Your task to perform on an android device: Go to settings Image 0: 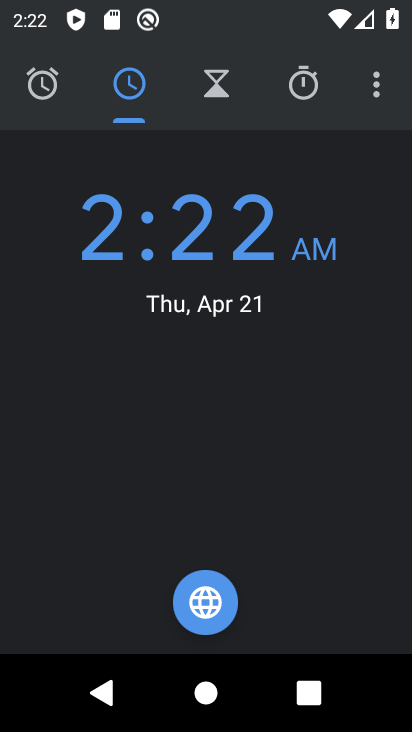
Step 0: press back button
Your task to perform on an android device: Go to settings Image 1: 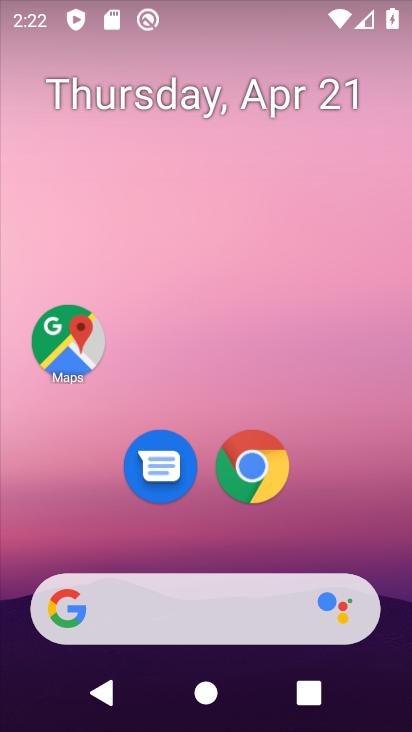
Step 1: drag from (169, 573) to (256, 98)
Your task to perform on an android device: Go to settings Image 2: 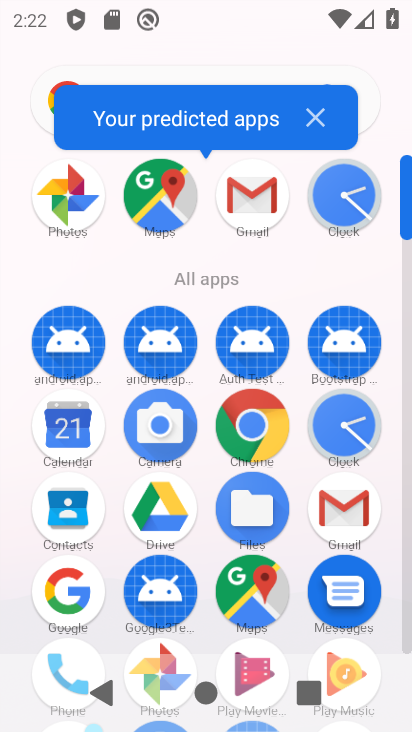
Step 2: drag from (214, 589) to (269, 270)
Your task to perform on an android device: Go to settings Image 3: 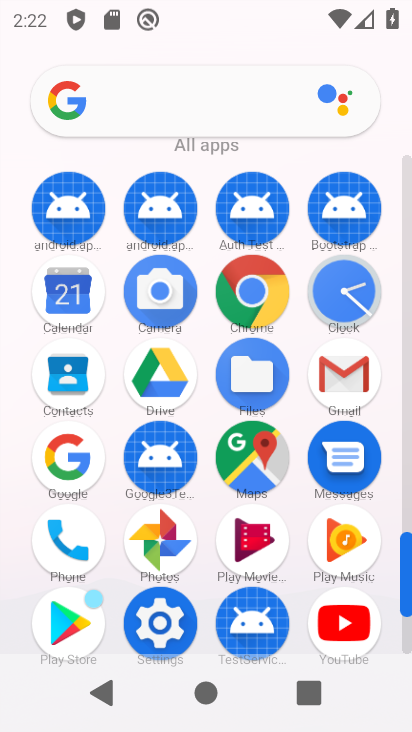
Step 3: click (188, 633)
Your task to perform on an android device: Go to settings Image 4: 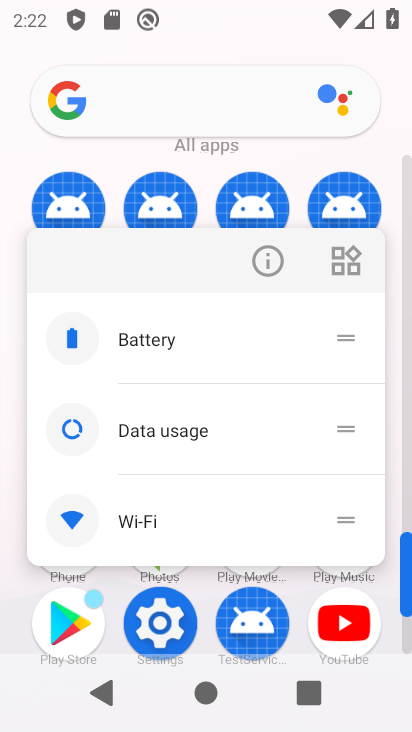
Step 4: click (161, 629)
Your task to perform on an android device: Go to settings Image 5: 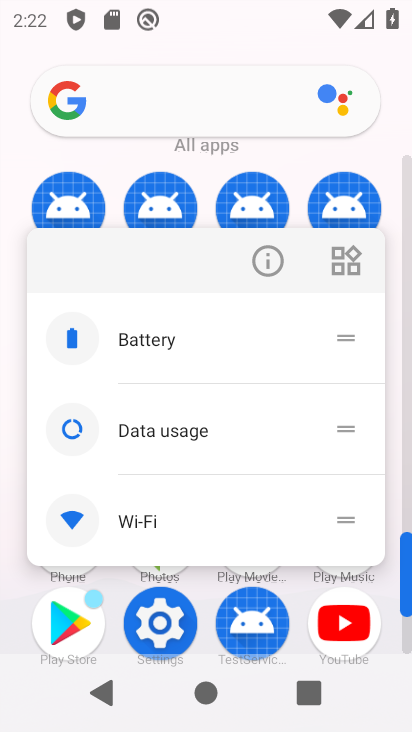
Step 5: click (169, 633)
Your task to perform on an android device: Go to settings Image 6: 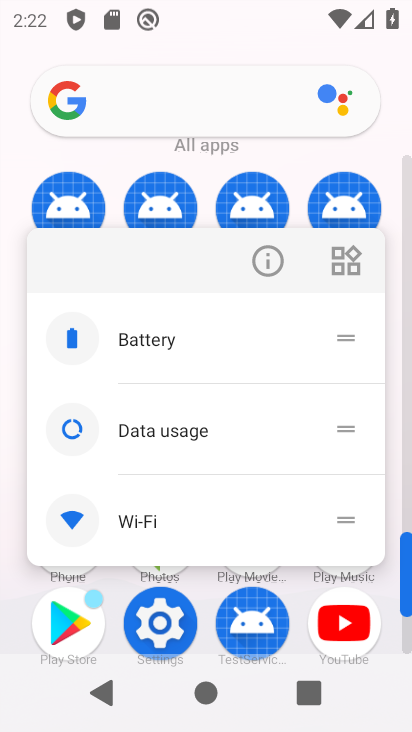
Step 6: click (166, 637)
Your task to perform on an android device: Go to settings Image 7: 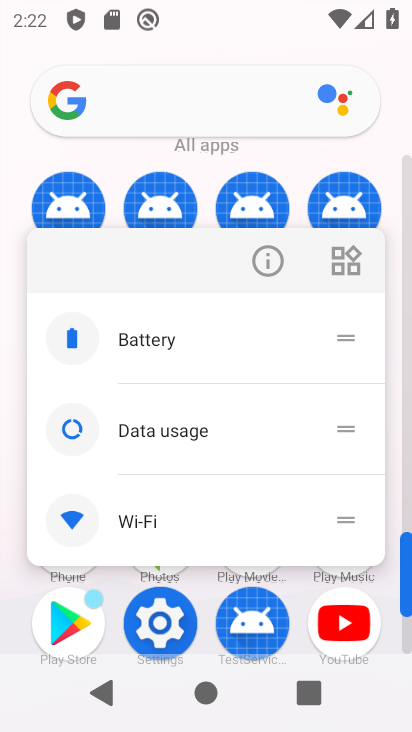
Step 7: click (163, 635)
Your task to perform on an android device: Go to settings Image 8: 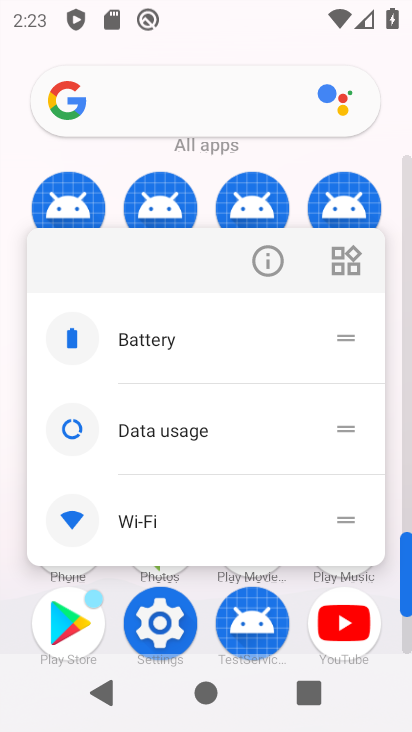
Step 8: click (169, 635)
Your task to perform on an android device: Go to settings Image 9: 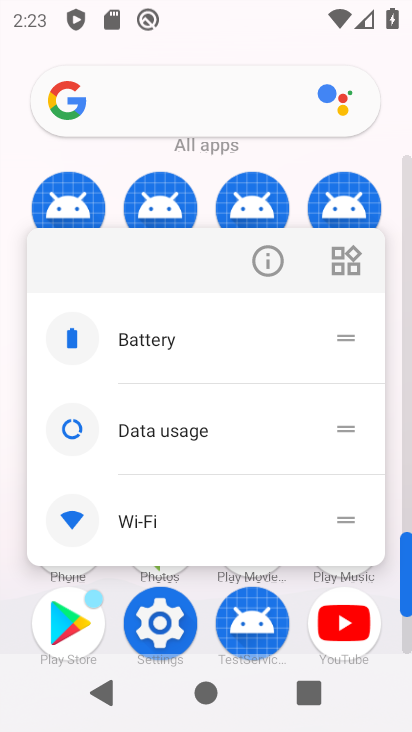
Step 9: click (149, 637)
Your task to perform on an android device: Go to settings Image 10: 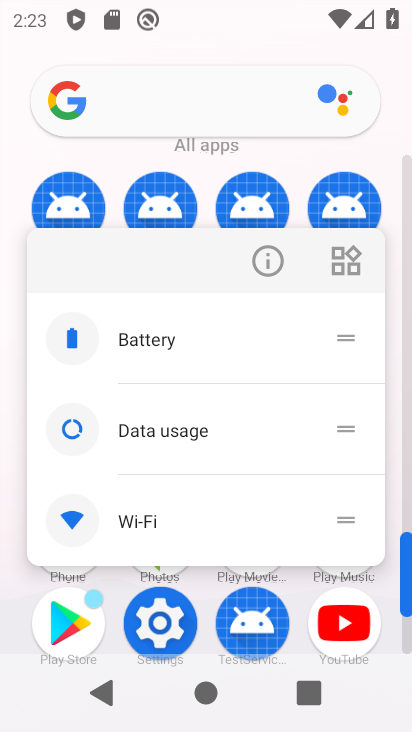
Step 10: click (154, 621)
Your task to perform on an android device: Go to settings Image 11: 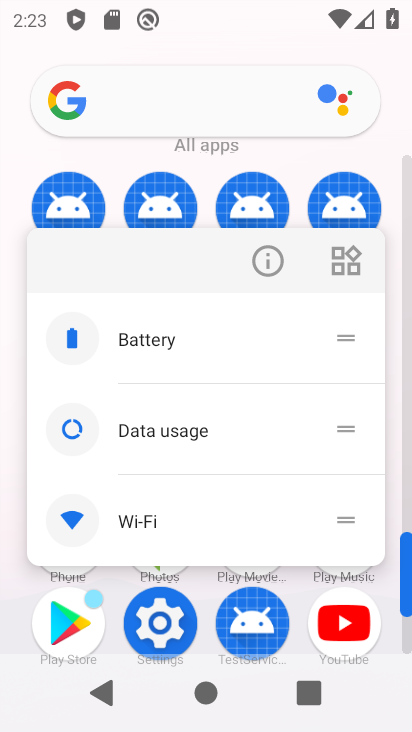
Step 11: click (160, 628)
Your task to perform on an android device: Go to settings Image 12: 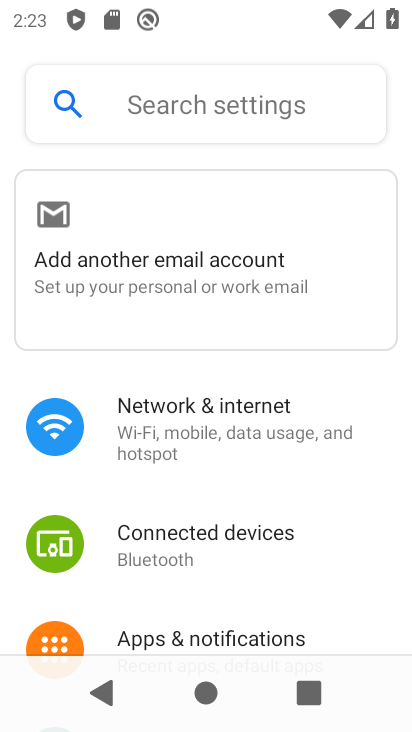
Step 12: task complete